Your task to perform on an android device: turn on the 12-hour format for clock Image 0: 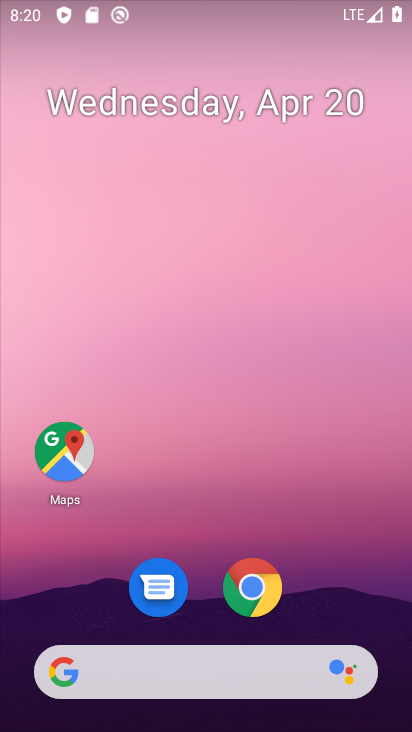
Step 0: drag from (341, 590) to (356, 206)
Your task to perform on an android device: turn on the 12-hour format for clock Image 1: 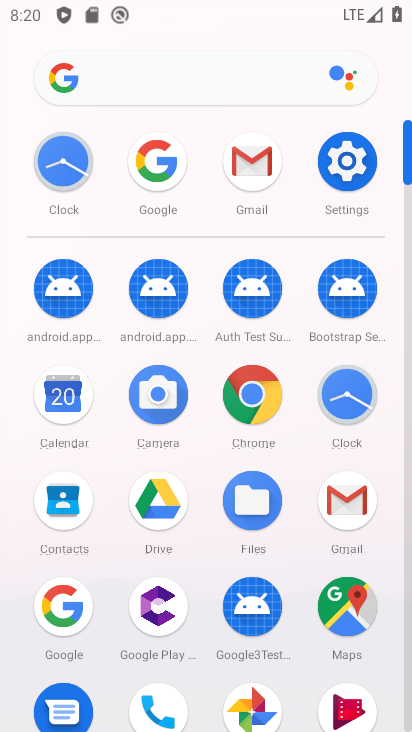
Step 1: click (351, 408)
Your task to perform on an android device: turn on the 12-hour format for clock Image 2: 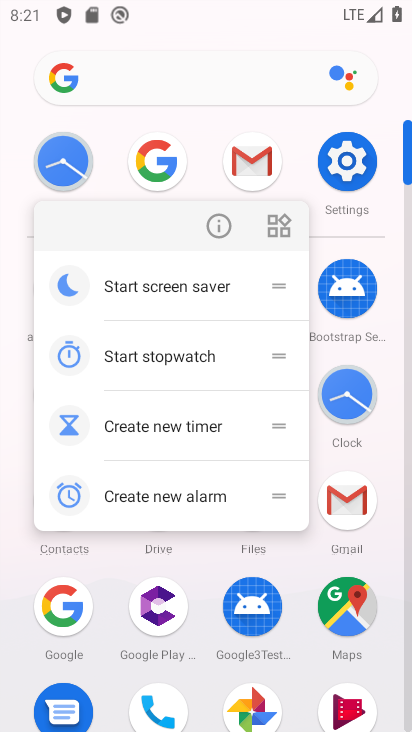
Step 2: click (351, 408)
Your task to perform on an android device: turn on the 12-hour format for clock Image 3: 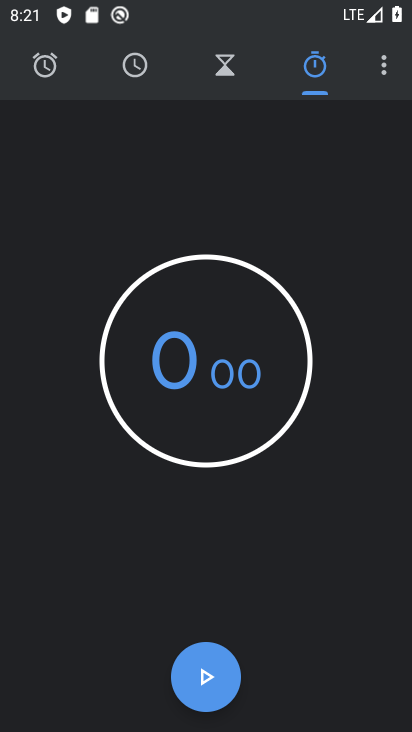
Step 3: click (387, 67)
Your task to perform on an android device: turn on the 12-hour format for clock Image 4: 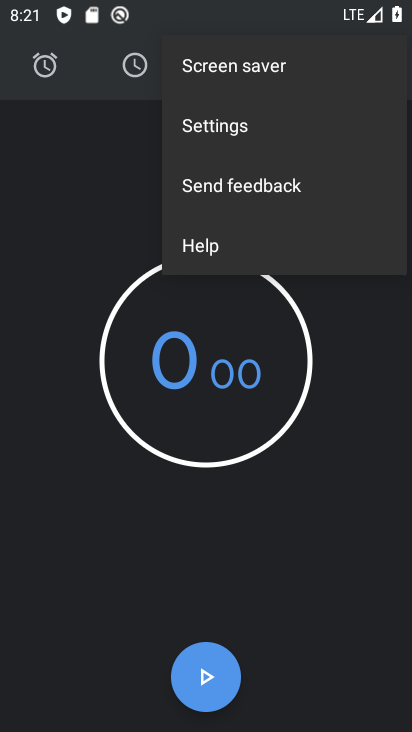
Step 4: click (286, 130)
Your task to perform on an android device: turn on the 12-hour format for clock Image 5: 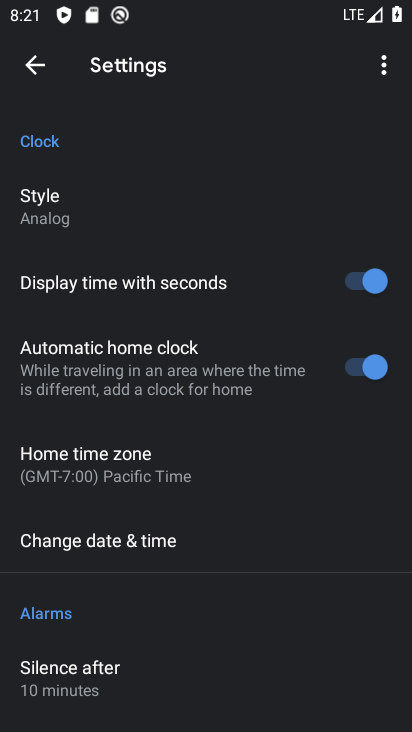
Step 5: drag from (316, 560) to (318, 375)
Your task to perform on an android device: turn on the 12-hour format for clock Image 6: 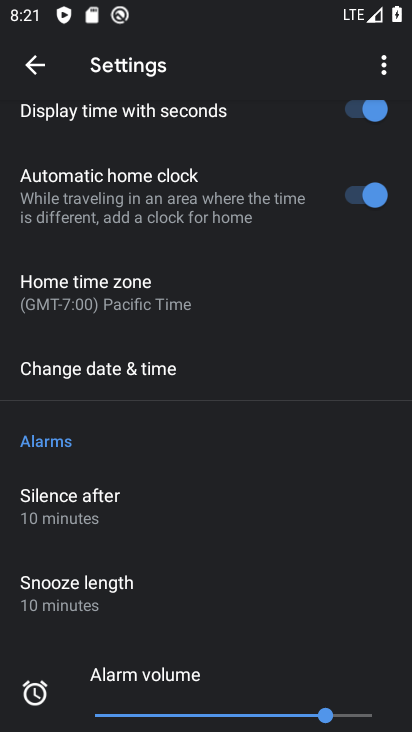
Step 6: drag from (305, 548) to (312, 405)
Your task to perform on an android device: turn on the 12-hour format for clock Image 7: 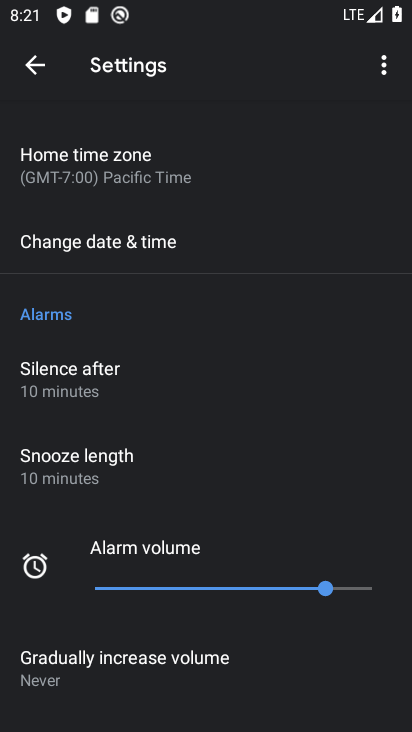
Step 7: drag from (303, 492) to (310, 323)
Your task to perform on an android device: turn on the 12-hour format for clock Image 8: 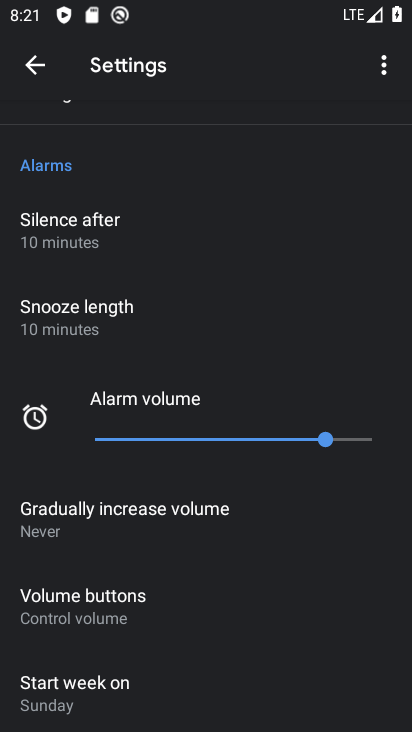
Step 8: drag from (329, 584) to (338, 362)
Your task to perform on an android device: turn on the 12-hour format for clock Image 9: 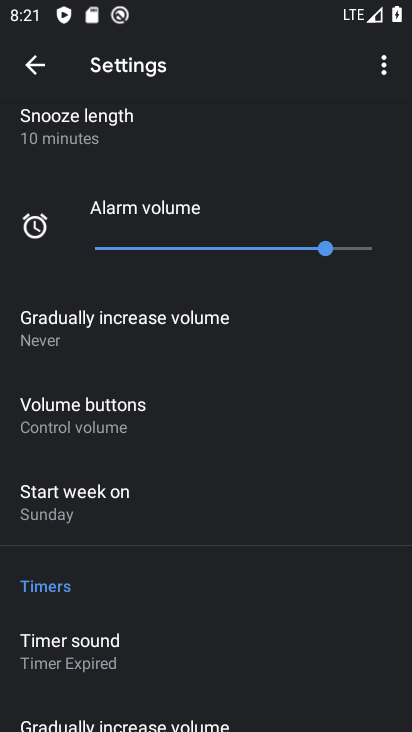
Step 9: drag from (332, 597) to (337, 441)
Your task to perform on an android device: turn on the 12-hour format for clock Image 10: 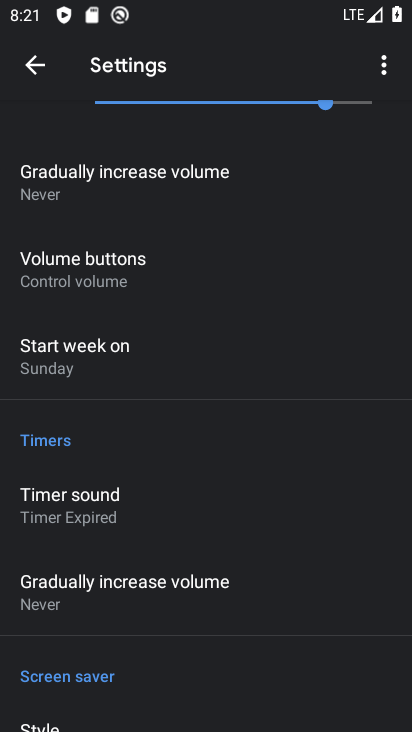
Step 10: drag from (306, 650) to (314, 468)
Your task to perform on an android device: turn on the 12-hour format for clock Image 11: 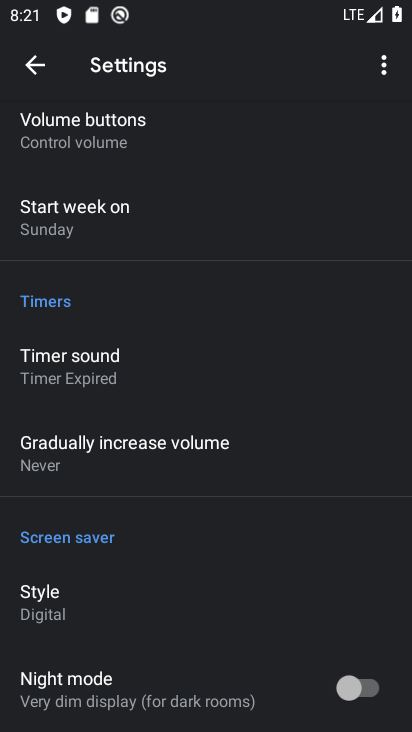
Step 11: drag from (330, 268) to (321, 456)
Your task to perform on an android device: turn on the 12-hour format for clock Image 12: 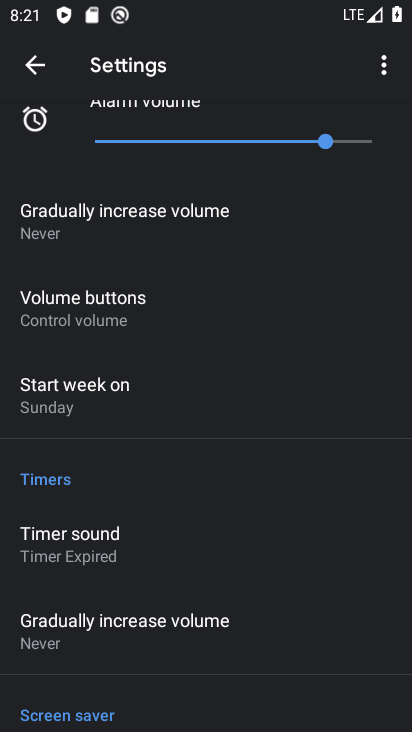
Step 12: drag from (328, 269) to (322, 448)
Your task to perform on an android device: turn on the 12-hour format for clock Image 13: 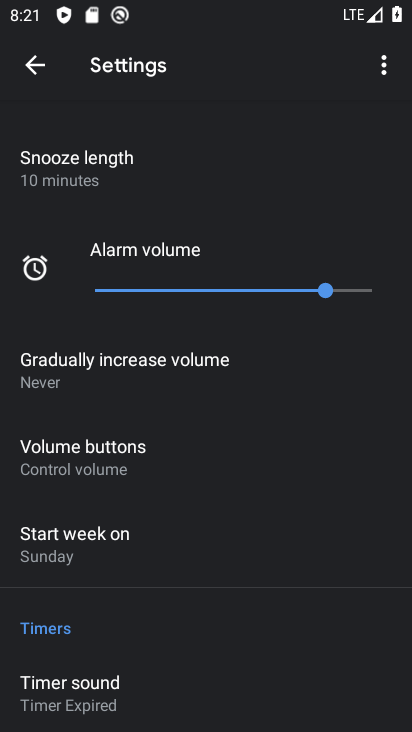
Step 13: drag from (360, 325) to (352, 487)
Your task to perform on an android device: turn on the 12-hour format for clock Image 14: 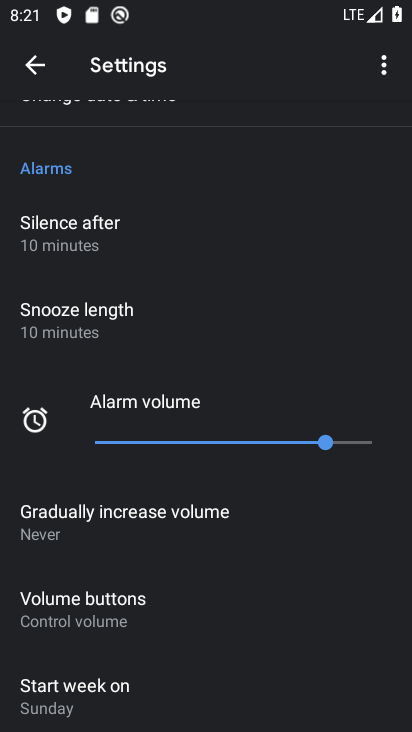
Step 14: drag from (367, 283) to (376, 463)
Your task to perform on an android device: turn on the 12-hour format for clock Image 15: 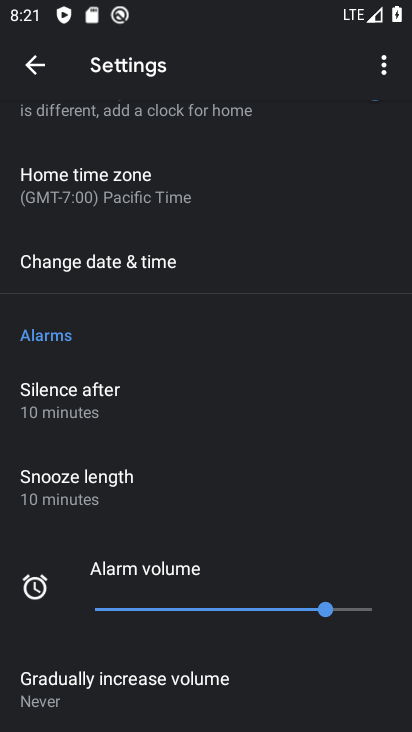
Step 15: drag from (363, 244) to (364, 374)
Your task to perform on an android device: turn on the 12-hour format for clock Image 16: 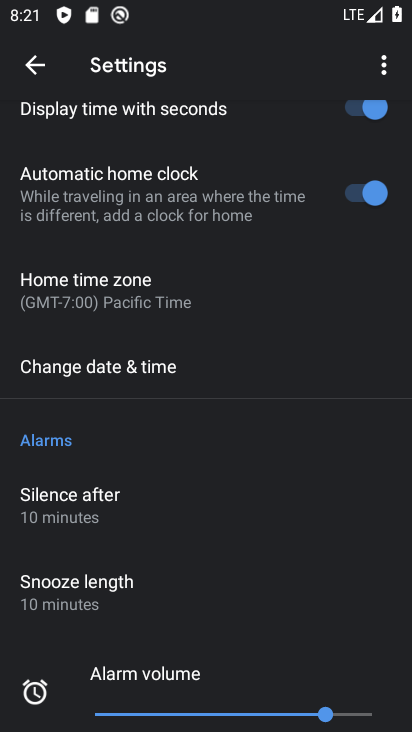
Step 16: click (246, 371)
Your task to perform on an android device: turn on the 12-hour format for clock Image 17: 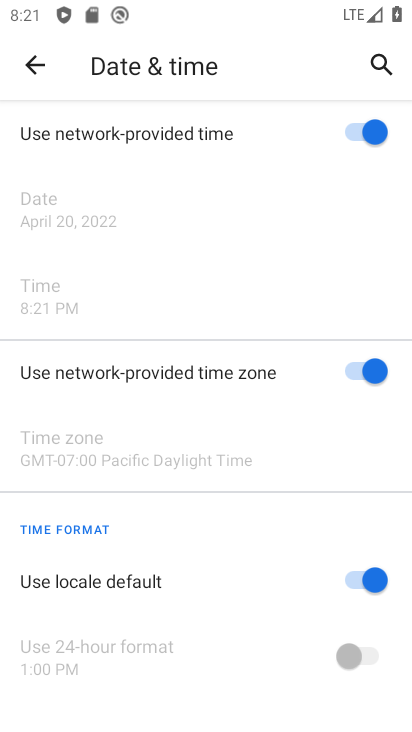
Step 17: task complete